Your task to perform on an android device: Search for pizza restaurants on Maps Image 0: 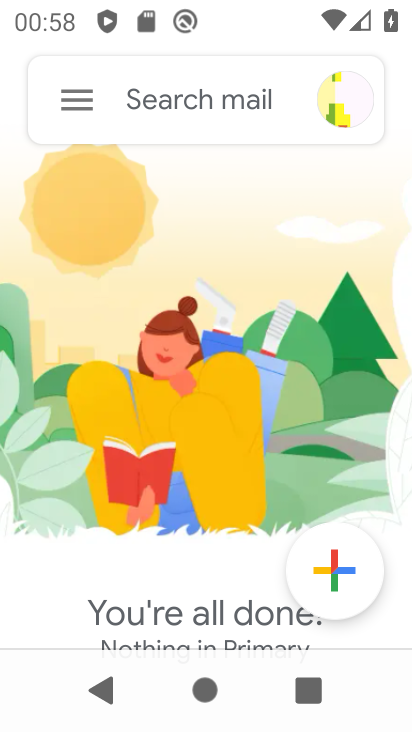
Step 0: press home button
Your task to perform on an android device: Search for pizza restaurants on Maps Image 1: 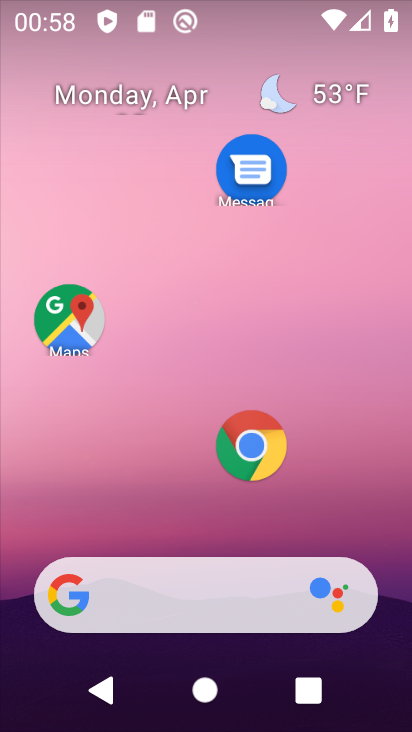
Step 1: click (90, 321)
Your task to perform on an android device: Search for pizza restaurants on Maps Image 2: 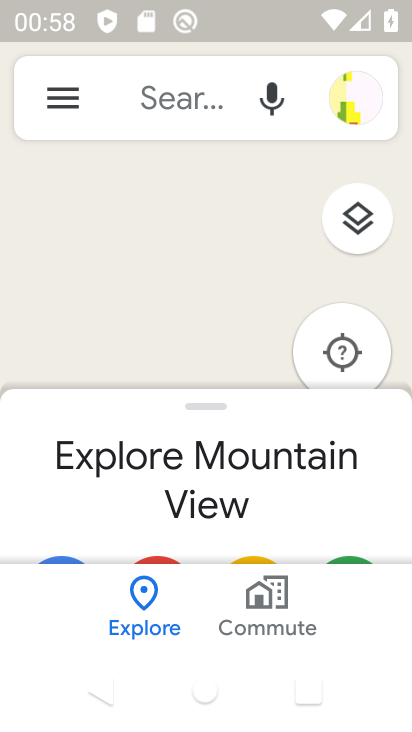
Step 2: click (165, 95)
Your task to perform on an android device: Search for pizza restaurants on Maps Image 3: 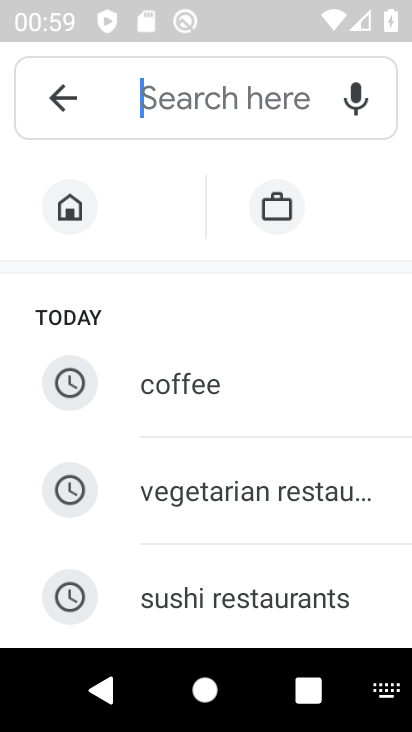
Step 3: type "pizza restaurants"
Your task to perform on an android device: Search for pizza restaurants on Maps Image 4: 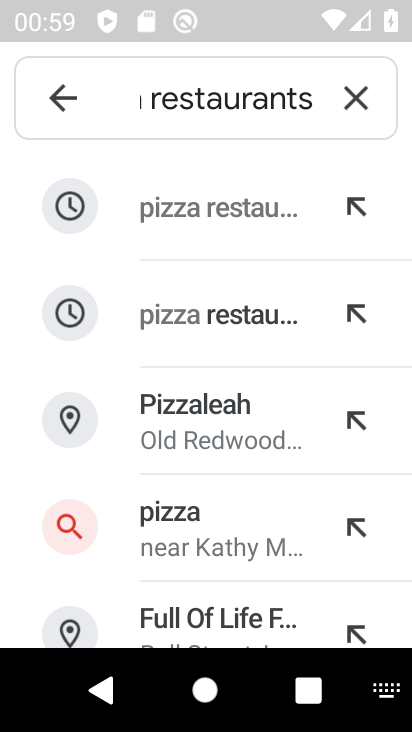
Step 4: click (209, 199)
Your task to perform on an android device: Search for pizza restaurants on Maps Image 5: 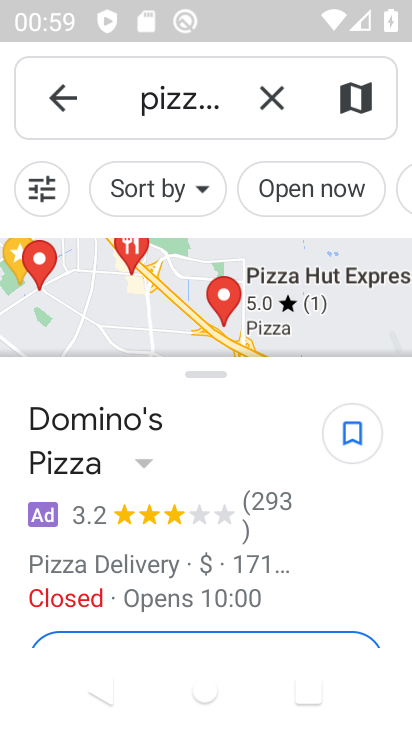
Step 5: task complete